Your task to perform on an android device: Do I have any events today? Image 0: 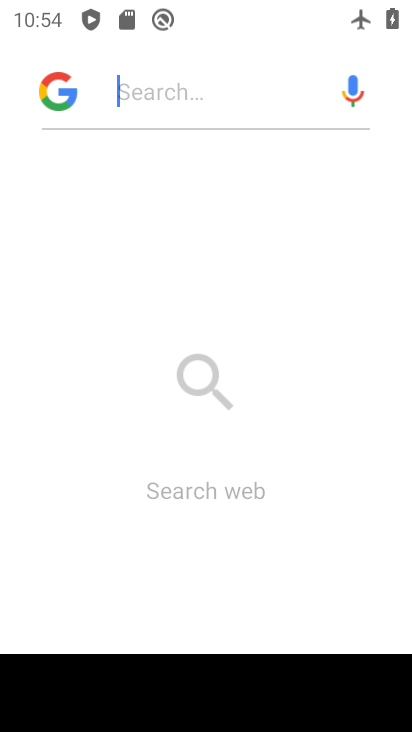
Step 0: press home button
Your task to perform on an android device: Do I have any events today? Image 1: 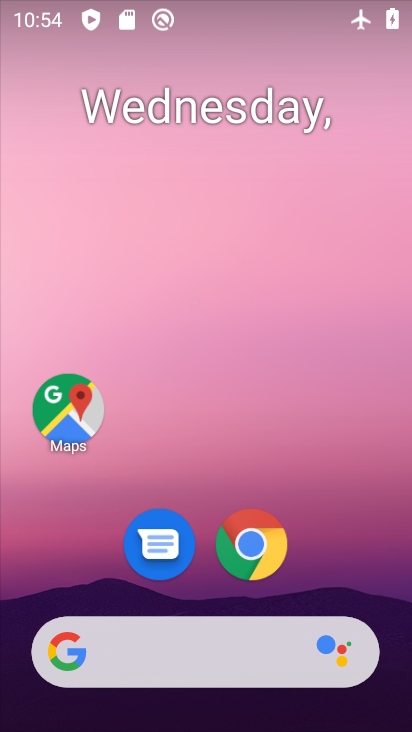
Step 1: drag from (306, 598) to (337, 62)
Your task to perform on an android device: Do I have any events today? Image 2: 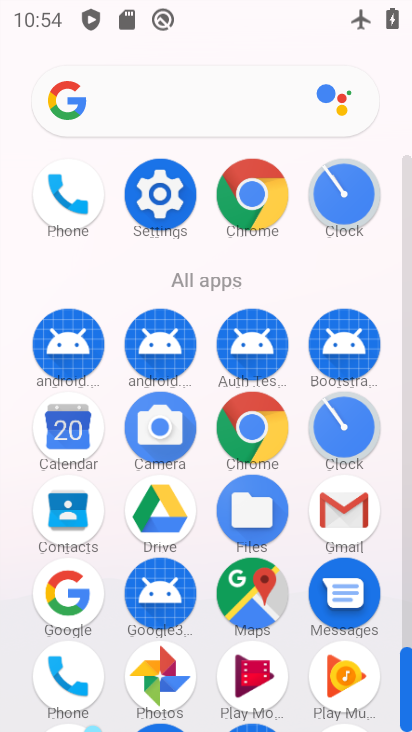
Step 2: click (149, 193)
Your task to perform on an android device: Do I have any events today? Image 3: 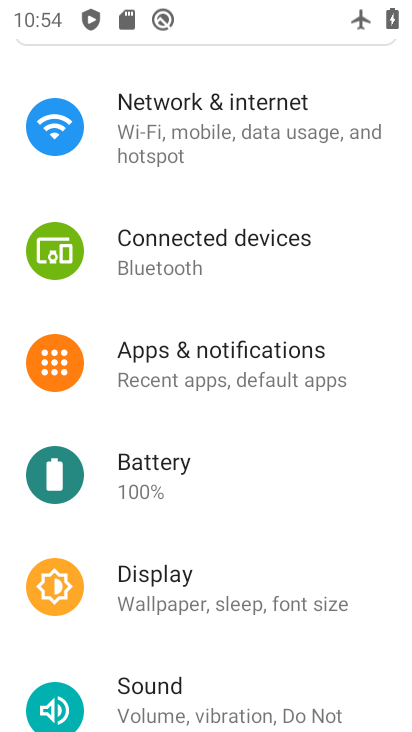
Step 3: click (197, 125)
Your task to perform on an android device: Do I have any events today? Image 4: 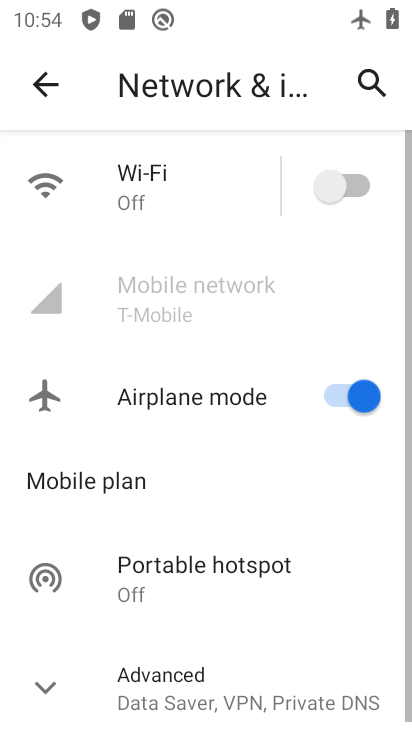
Step 4: click (327, 181)
Your task to perform on an android device: Do I have any events today? Image 5: 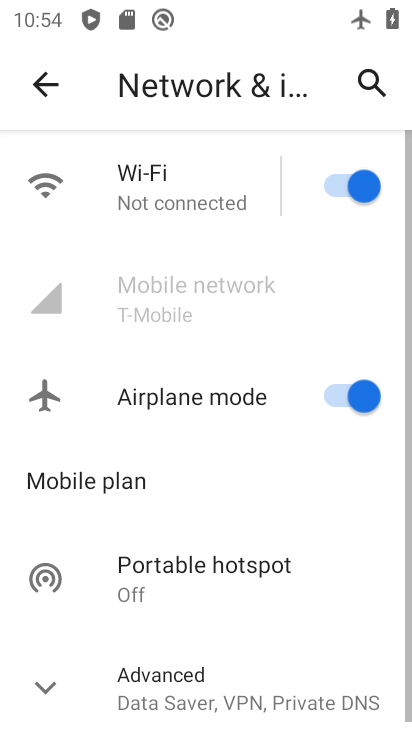
Step 5: click (345, 400)
Your task to perform on an android device: Do I have any events today? Image 6: 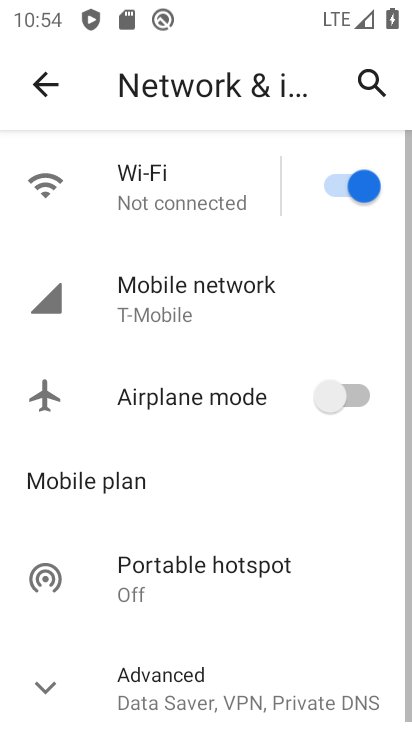
Step 6: press home button
Your task to perform on an android device: Do I have any events today? Image 7: 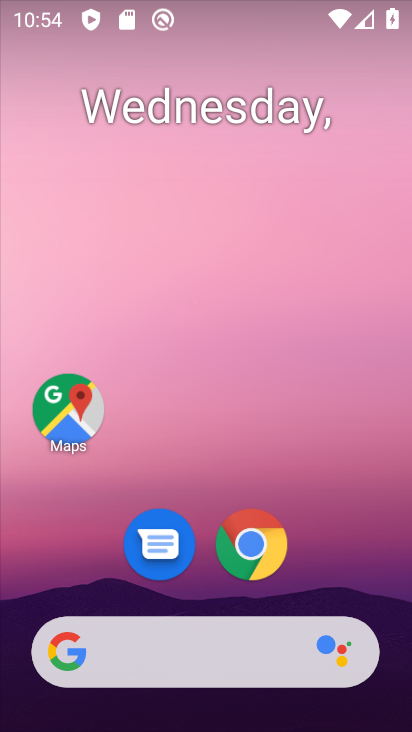
Step 7: drag from (237, 469) to (258, 130)
Your task to perform on an android device: Do I have any events today? Image 8: 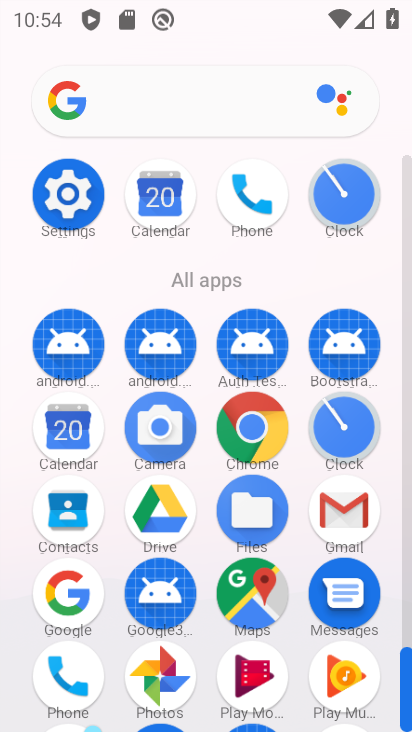
Step 8: click (68, 427)
Your task to perform on an android device: Do I have any events today? Image 9: 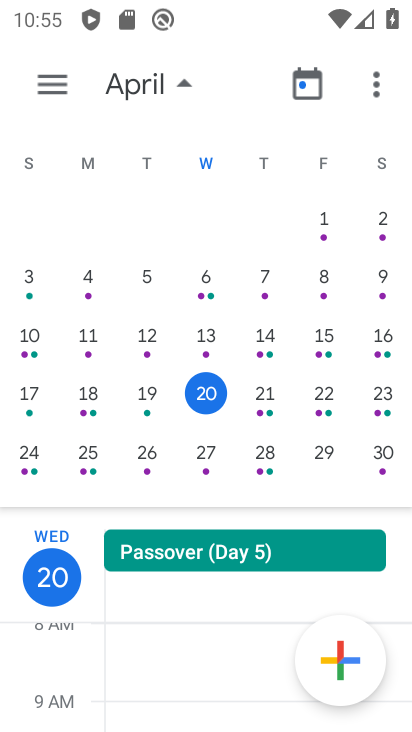
Step 9: click (63, 82)
Your task to perform on an android device: Do I have any events today? Image 10: 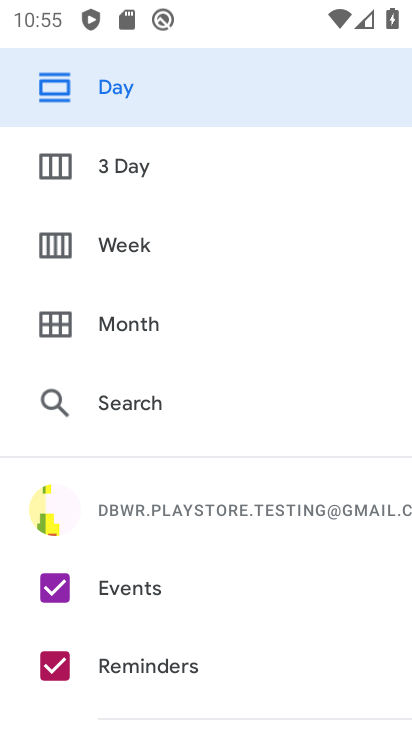
Step 10: click (124, 89)
Your task to perform on an android device: Do I have any events today? Image 11: 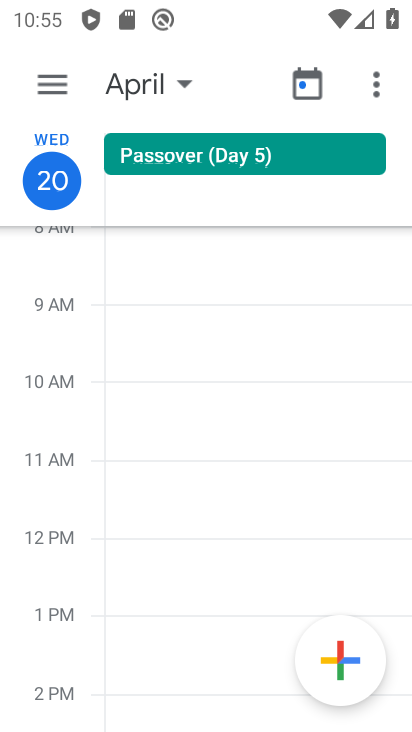
Step 11: task complete